Your task to perform on an android device: See recent photos Image 0: 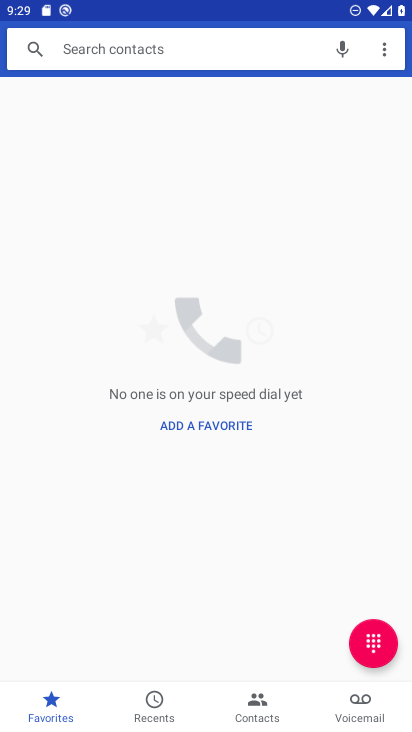
Step 0: press home button
Your task to perform on an android device: See recent photos Image 1: 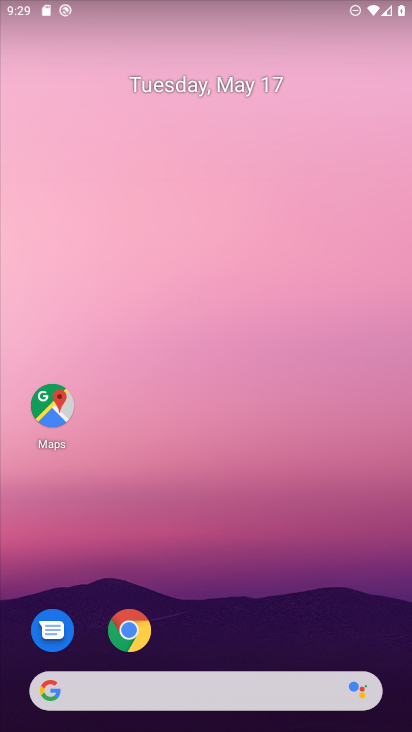
Step 1: drag from (292, 622) to (298, 162)
Your task to perform on an android device: See recent photos Image 2: 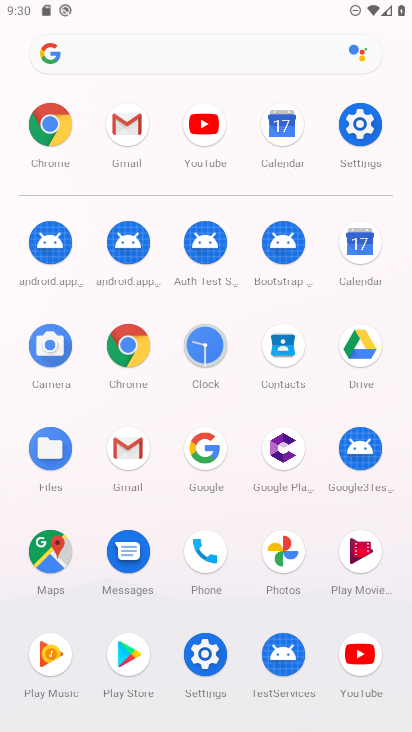
Step 2: click (266, 546)
Your task to perform on an android device: See recent photos Image 3: 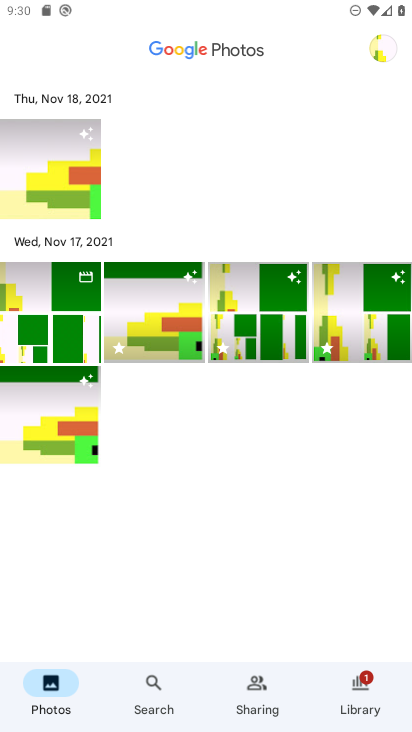
Step 3: click (56, 184)
Your task to perform on an android device: See recent photos Image 4: 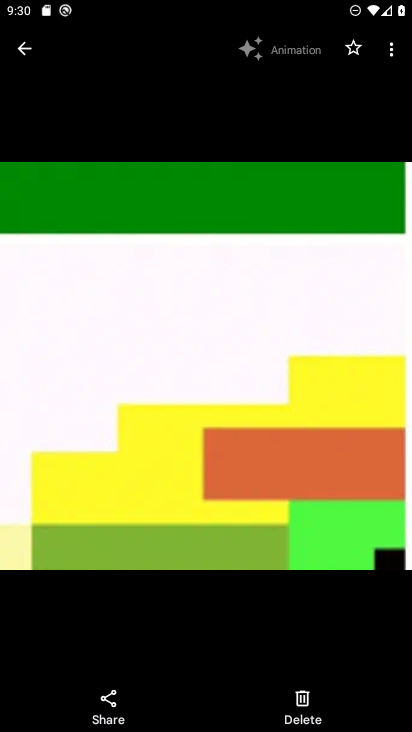
Step 4: task complete